Your task to perform on an android device: Open Google Maps Image 0: 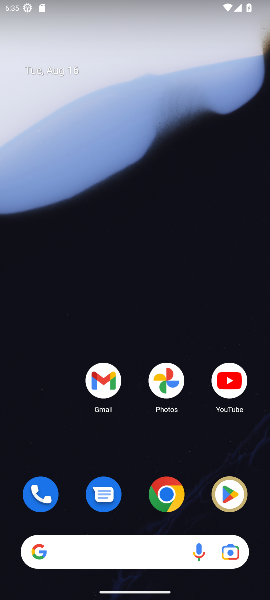
Step 0: drag from (52, 444) to (101, 152)
Your task to perform on an android device: Open Google Maps Image 1: 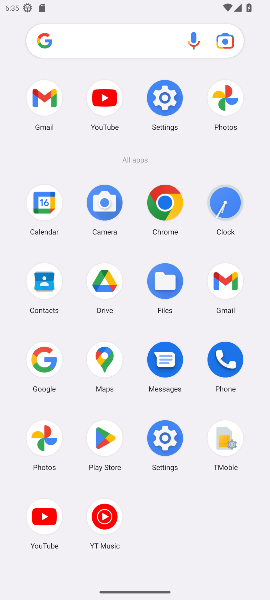
Step 1: click (109, 368)
Your task to perform on an android device: Open Google Maps Image 2: 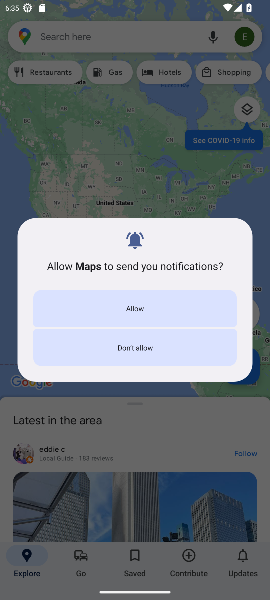
Step 2: click (129, 343)
Your task to perform on an android device: Open Google Maps Image 3: 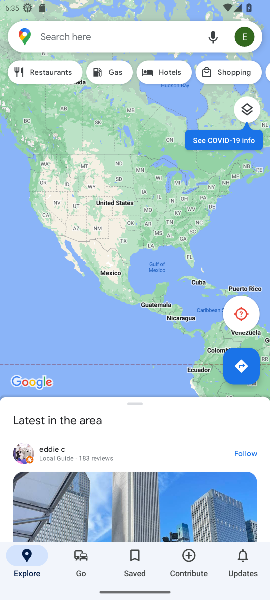
Step 3: task complete